Your task to perform on an android device: Toggle the flashlight Image 0: 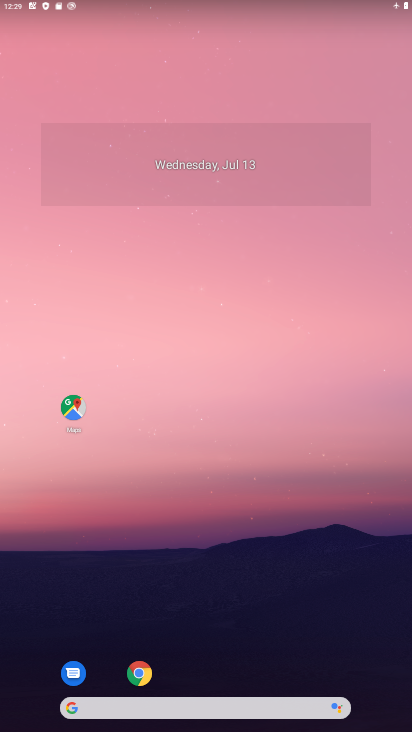
Step 0: drag from (262, 646) to (267, 97)
Your task to perform on an android device: Toggle the flashlight Image 1: 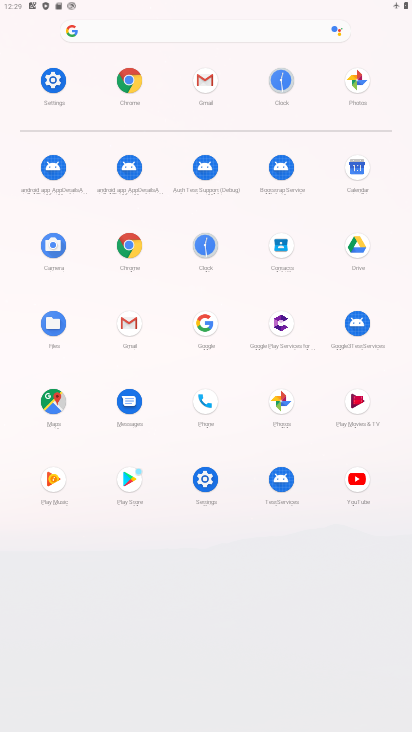
Step 1: click (25, 94)
Your task to perform on an android device: Toggle the flashlight Image 2: 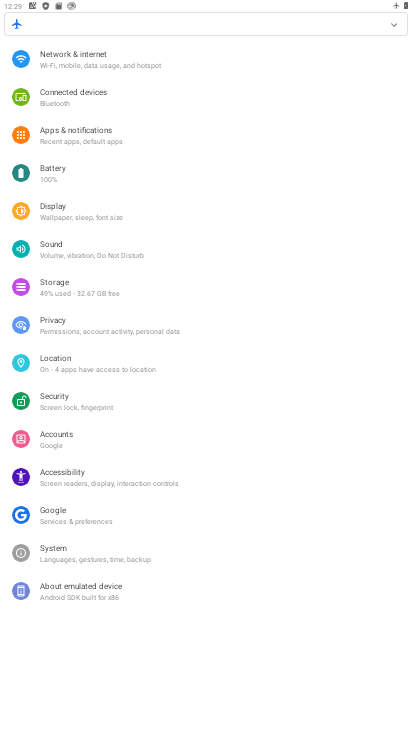
Step 2: click (297, 250)
Your task to perform on an android device: Toggle the flashlight Image 3: 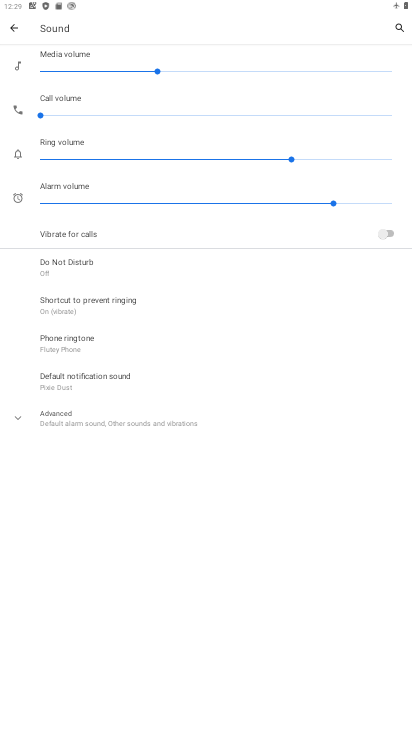
Step 3: task complete